Your task to perform on an android device: When is my next appointment? Image 0: 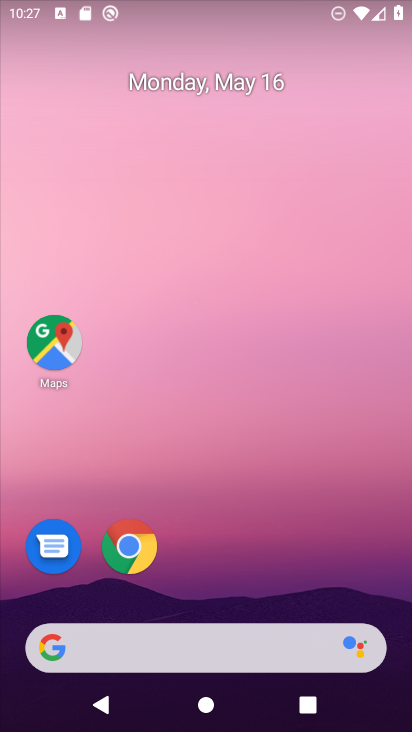
Step 0: drag from (249, 610) to (276, 108)
Your task to perform on an android device: When is my next appointment? Image 1: 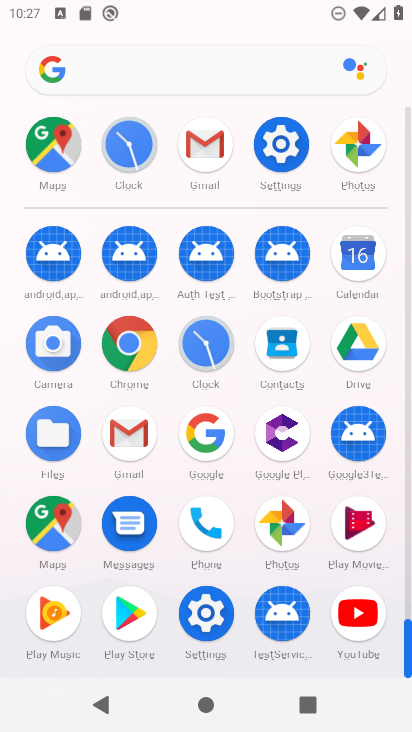
Step 1: click (346, 258)
Your task to perform on an android device: When is my next appointment? Image 2: 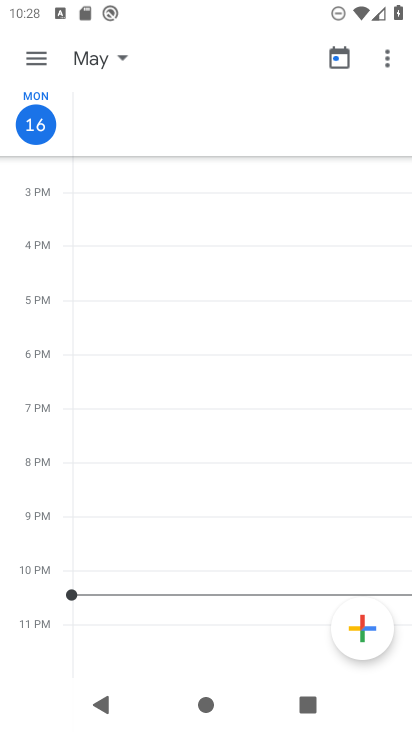
Step 2: task complete